Your task to perform on an android device: turn off smart reply in the gmail app Image 0: 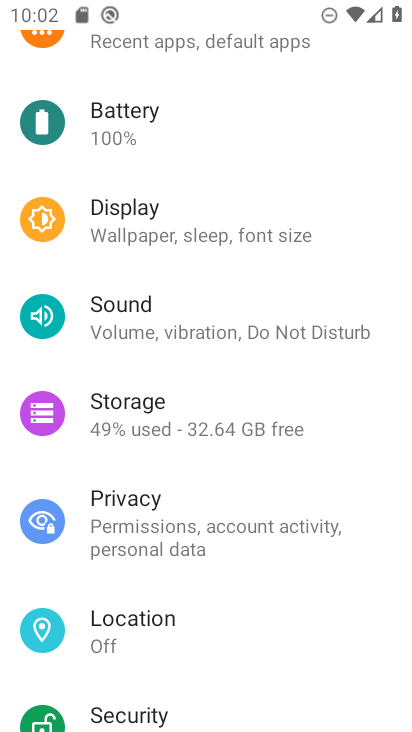
Step 0: press home button
Your task to perform on an android device: turn off smart reply in the gmail app Image 1: 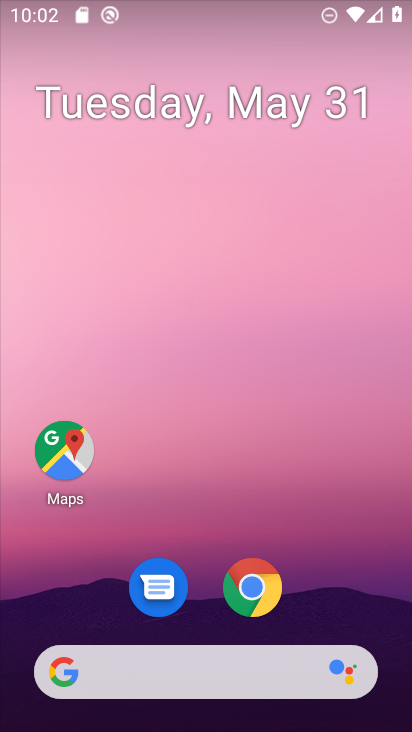
Step 1: drag from (207, 625) to (216, 44)
Your task to perform on an android device: turn off smart reply in the gmail app Image 2: 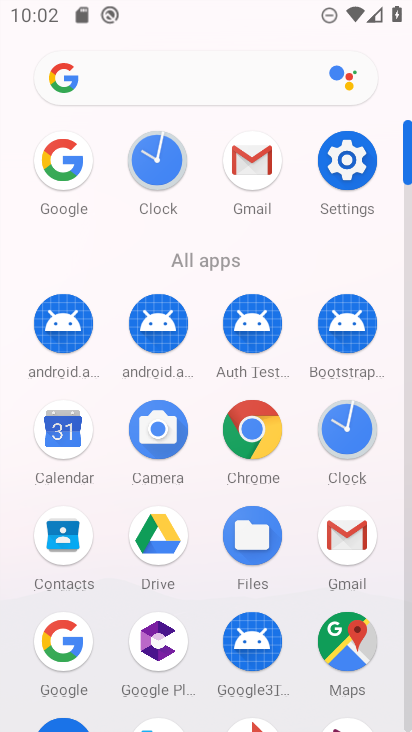
Step 2: click (249, 152)
Your task to perform on an android device: turn off smart reply in the gmail app Image 3: 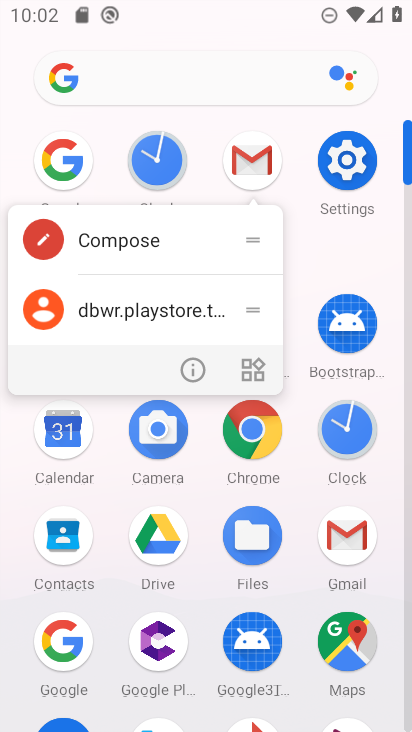
Step 3: click (248, 149)
Your task to perform on an android device: turn off smart reply in the gmail app Image 4: 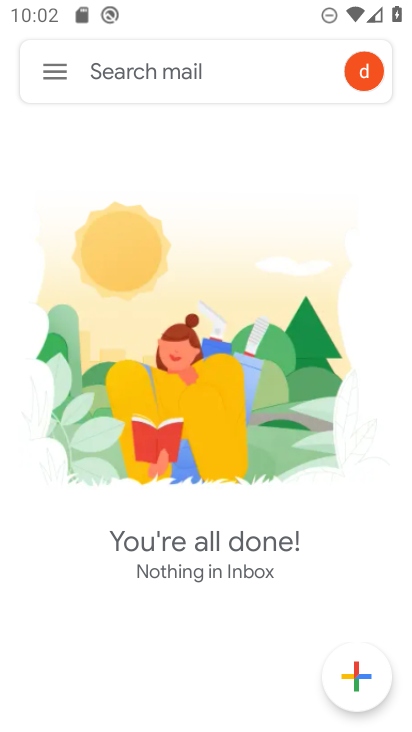
Step 4: click (53, 65)
Your task to perform on an android device: turn off smart reply in the gmail app Image 5: 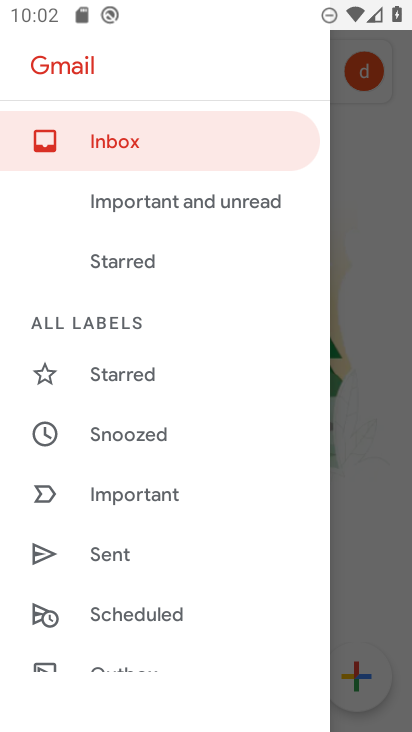
Step 5: drag from (181, 626) to (222, 65)
Your task to perform on an android device: turn off smart reply in the gmail app Image 6: 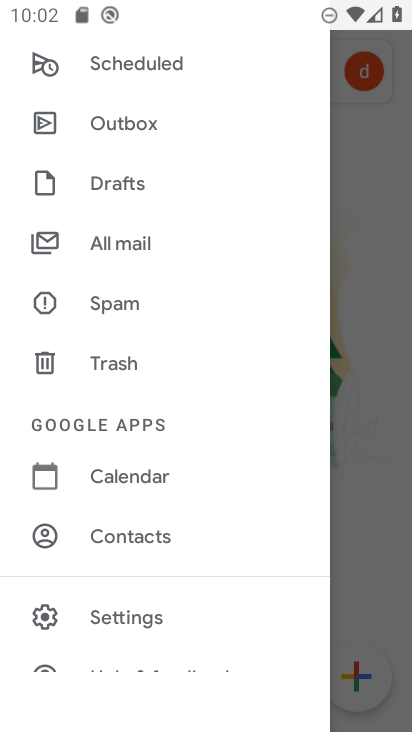
Step 6: click (170, 609)
Your task to perform on an android device: turn off smart reply in the gmail app Image 7: 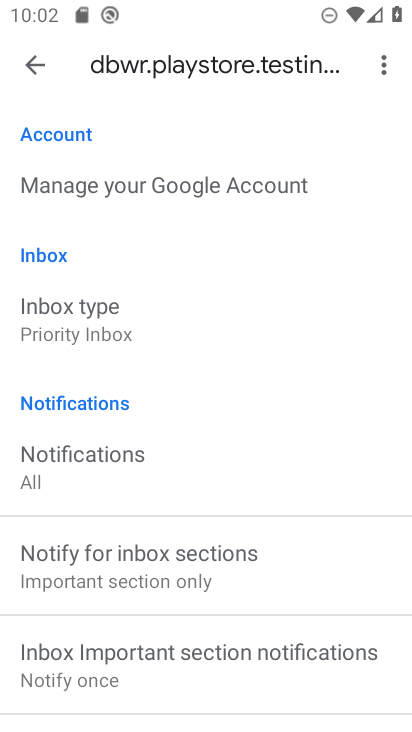
Step 7: drag from (199, 694) to (228, 107)
Your task to perform on an android device: turn off smart reply in the gmail app Image 8: 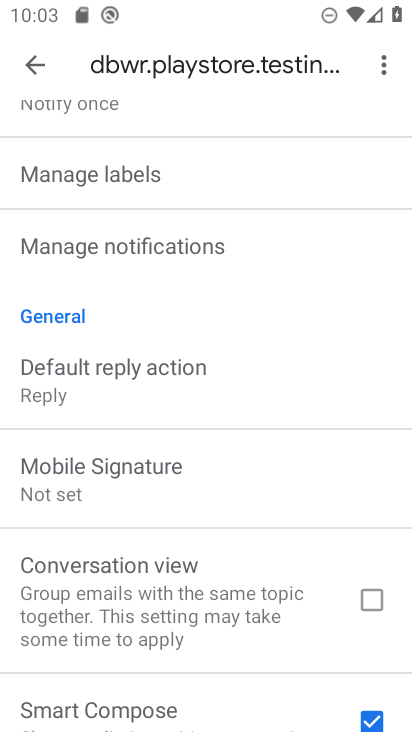
Step 8: drag from (227, 618) to (254, 110)
Your task to perform on an android device: turn off smart reply in the gmail app Image 9: 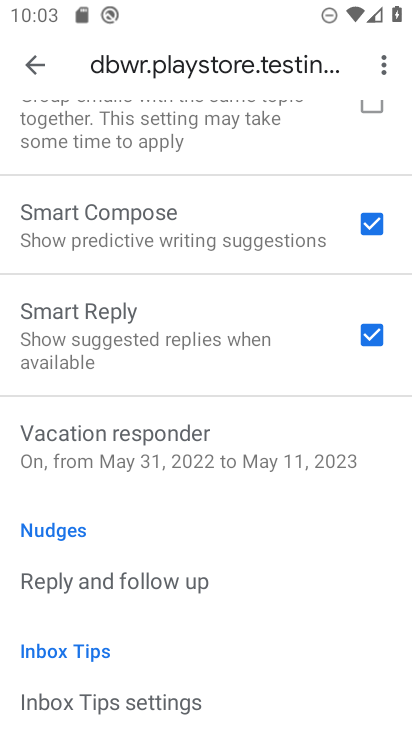
Step 9: click (365, 332)
Your task to perform on an android device: turn off smart reply in the gmail app Image 10: 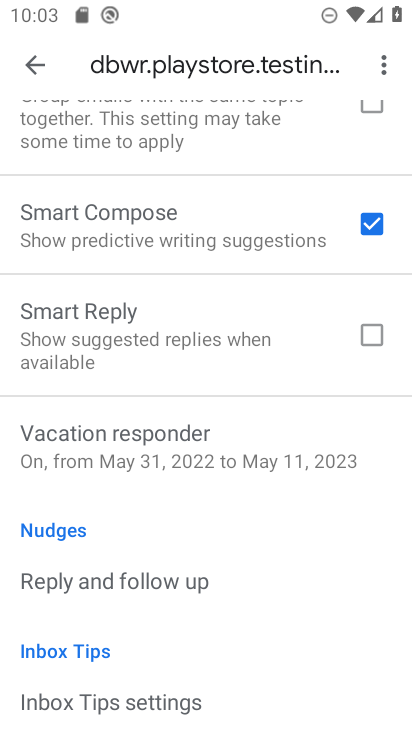
Step 10: task complete